Your task to perform on an android device: Show the shopping cart on target.com. Image 0: 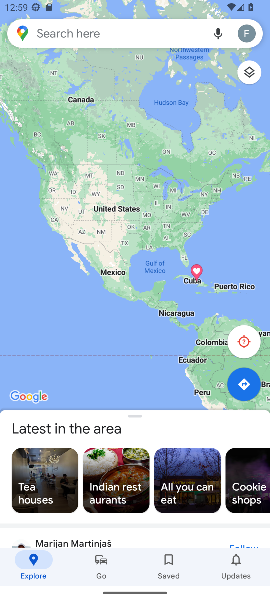
Step 0: press home button
Your task to perform on an android device: Show the shopping cart on target.com. Image 1: 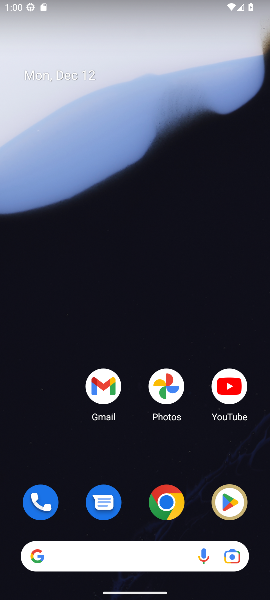
Step 1: click (164, 514)
Your task to perform on an android device: Show the shopping cart on target.com. Image 2: 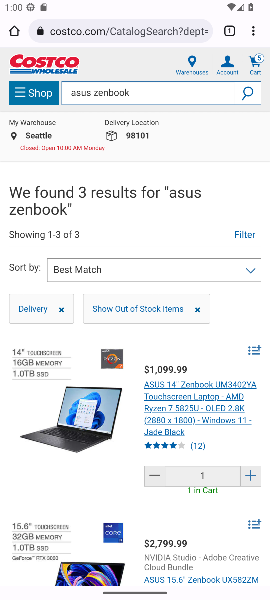
Step 2: click (147, 90)
Your task to perform on an android device: Show the shopping cart on target.com. Image 3: 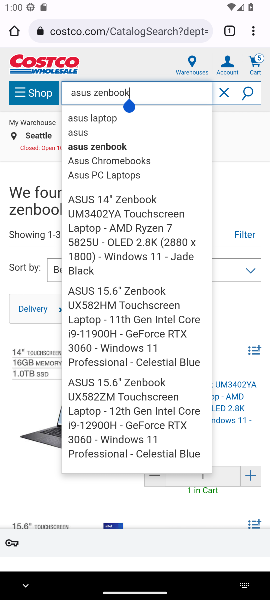
Step 3: click (219, 103)
Your task to perform on an android device: Show the shopping cart on target.com. Image 4: 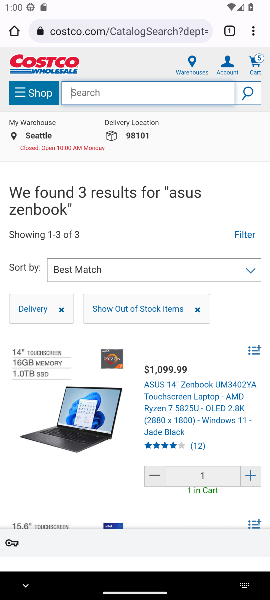
Step 4: click (164, 36)
Your task to perform on an android device: Show the shopping cart on target.com. Image 5: 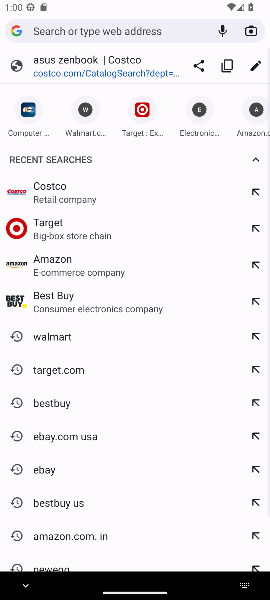
Step 5: click (82, 228)
Your task to perform on an android device: Show the shopping cart on target.com. Image 6: 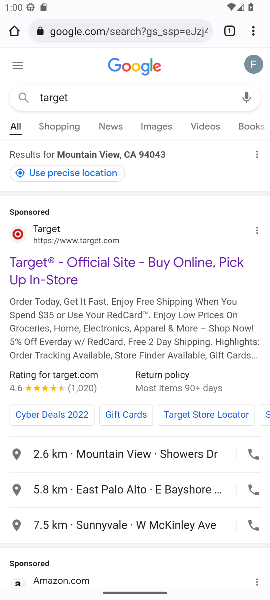
Step 6: click (95, 272)
Your task to perform on an android device: Show the shopping cart on target.com. Image 7: 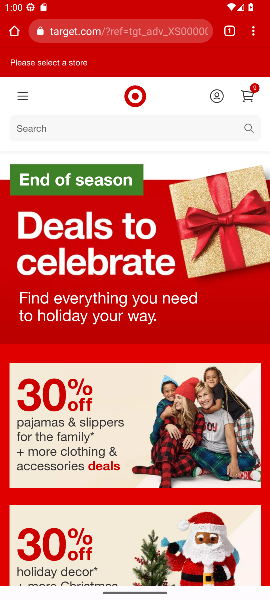
Step 7: click (82, 133)
Your task to perform on an android device: Show the shopping cart on target.com. Image 8: 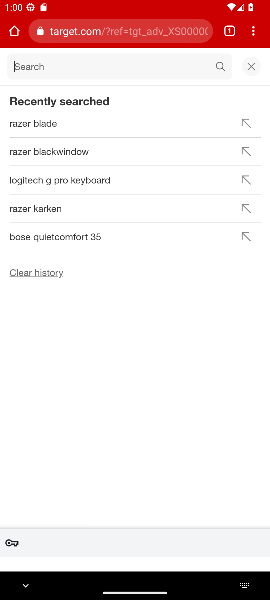
Step 8: click (253, 72)
Your task to perform on an android device: Show the shopping cart on target.com. Image 9: 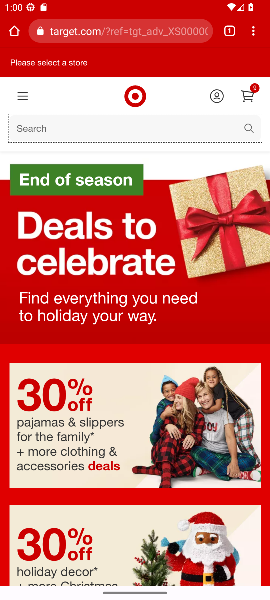
Step 9: click (244, 87)
Your task to perform on an android device: Show the shopping cart on target.com. Image 10: 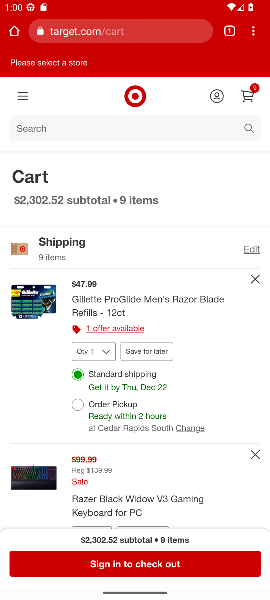
Step 10: click (256, 283)
Your task to perform on an android device: Show the shopping cart on target.com. Image 11: 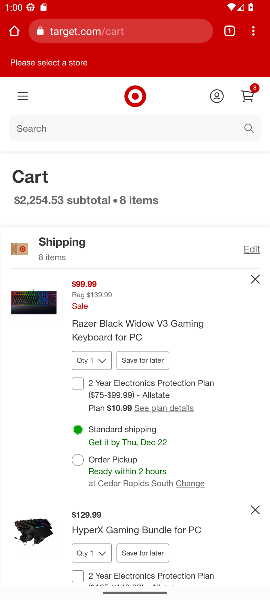
Step 11: click (256, 283)
Your task to perform on an android device: Show the shopping cart on target.com. Image 12: 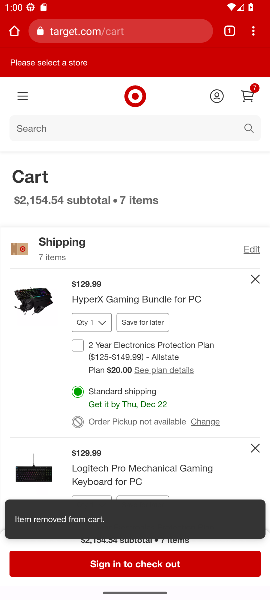
Step 12: click (256, 283)
Your task to perform on an android device: Show the shopping cart on target.com. Image 13: 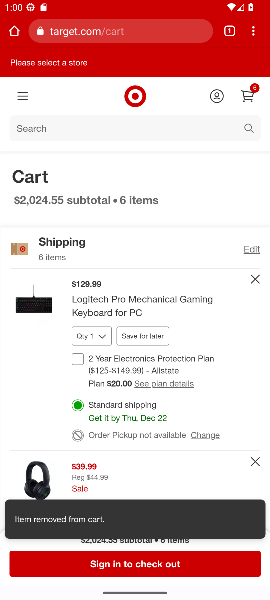
Step 13: click (256, 283)
Your task to perform on an android device: Show the shopping cart on target.com. Image 14: 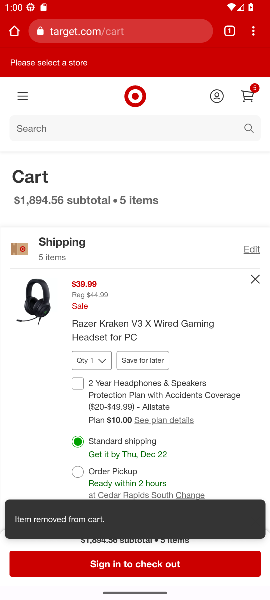
Step 14: click (256, 283)
Your task to perform on an android device: Show the shopping cart on target.com. Image 15: 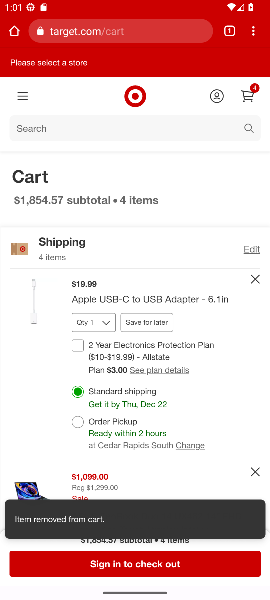
Step 15: click (256, 283)
Your task to perform on an android device: Show the shopping cart on target.com. Image 16: 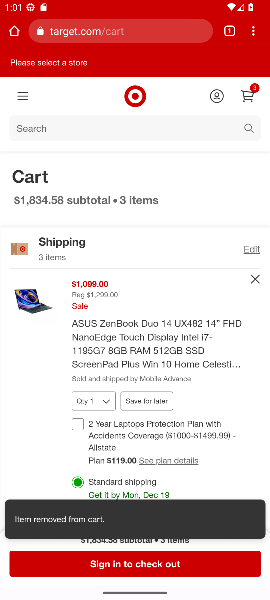
Step 16: click (256, 283)
Your task to perform on an android device: Show the shopping cart on target.com. Image 17: 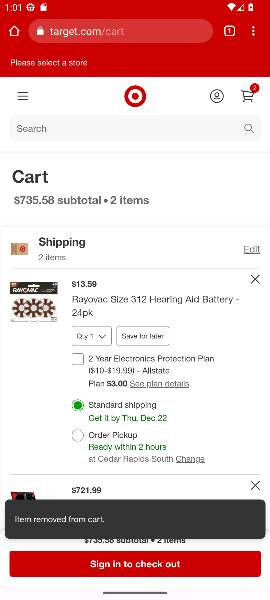
Step 17: click (256, 283)
Your task to perform on an android device: Show the shopping cart on target.com. Image 18: 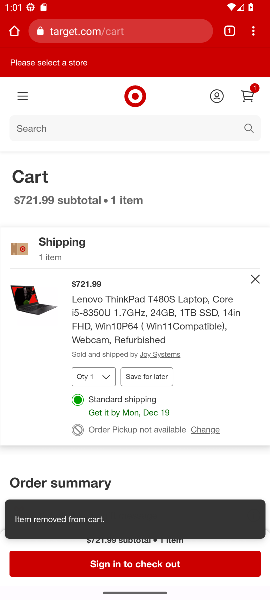
Step 18: click (256, 283)
Your task to perform on an android device: Show the shopping cart on target.com. Image 19: 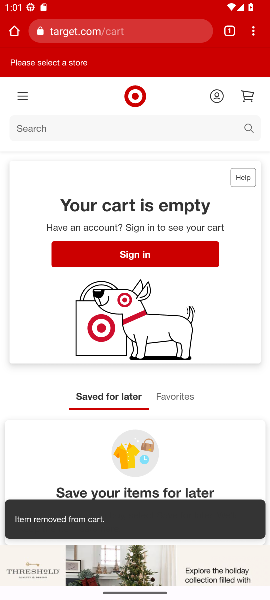
Step 19: task complete